Your task to perform on an android device: turn off notifications in google photos Image 0: 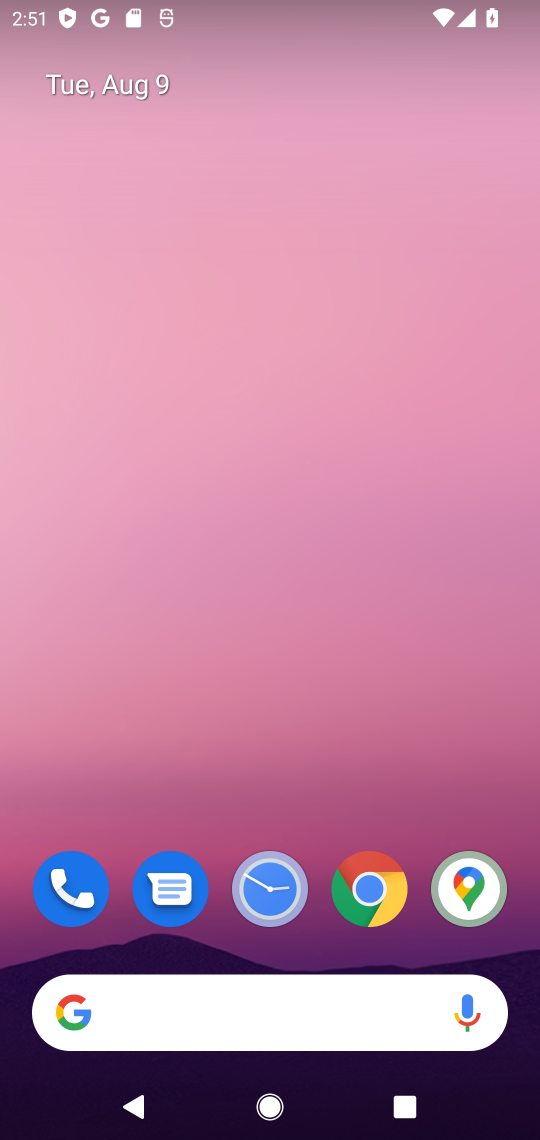
Step 0: drag from (247, 794) to (331, 0)
Your task to perform on an android device: turn off notifications in google photos Image 1: 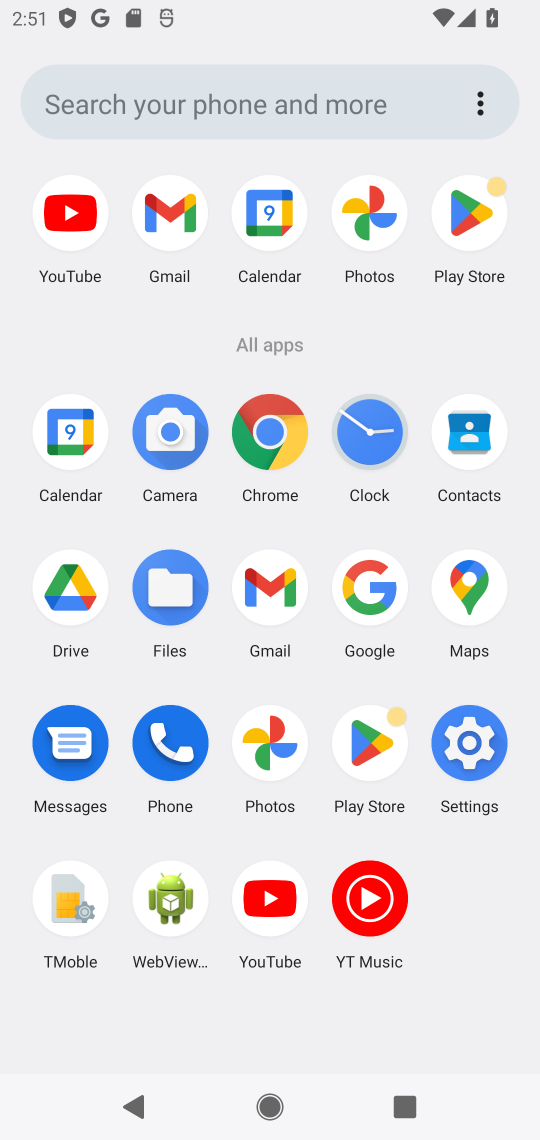
Step 1: click (375, 205)
Your task to perform on an android device: turn off notifications in google photos Image 2: 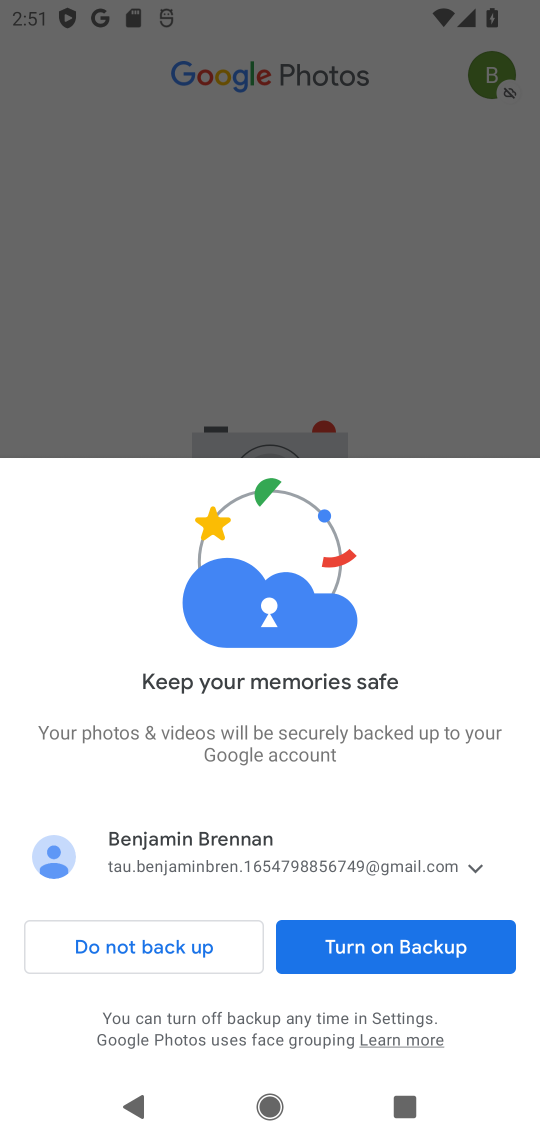
Step 2: click (424, 941)
Your task to perform on an android device: turn off notifications in google photos Image 3: 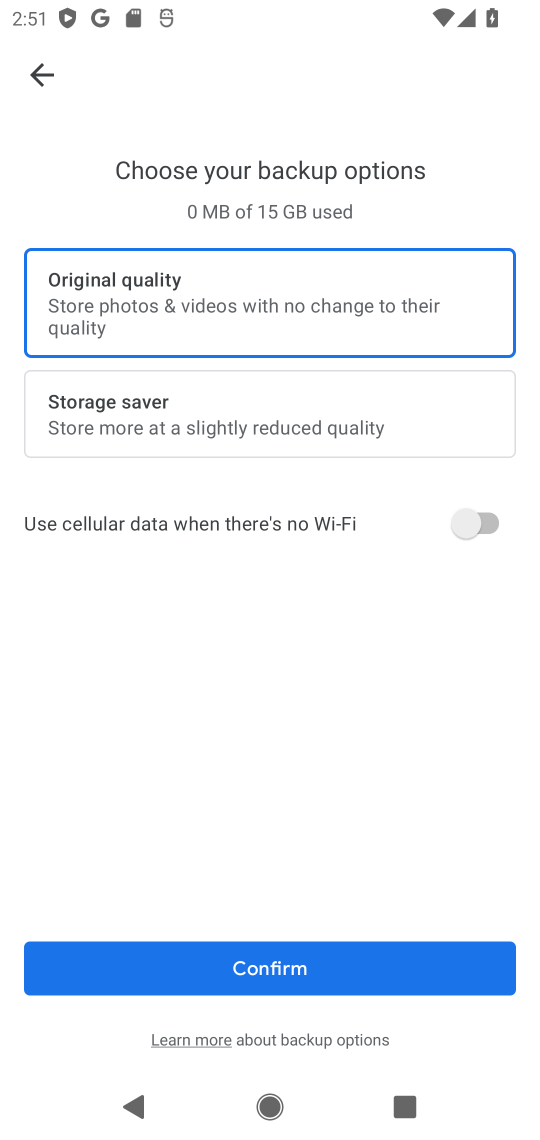
Step 3: click (426, 971)
Your task to perform on an android device: turn off notifications in google photos Image 4: 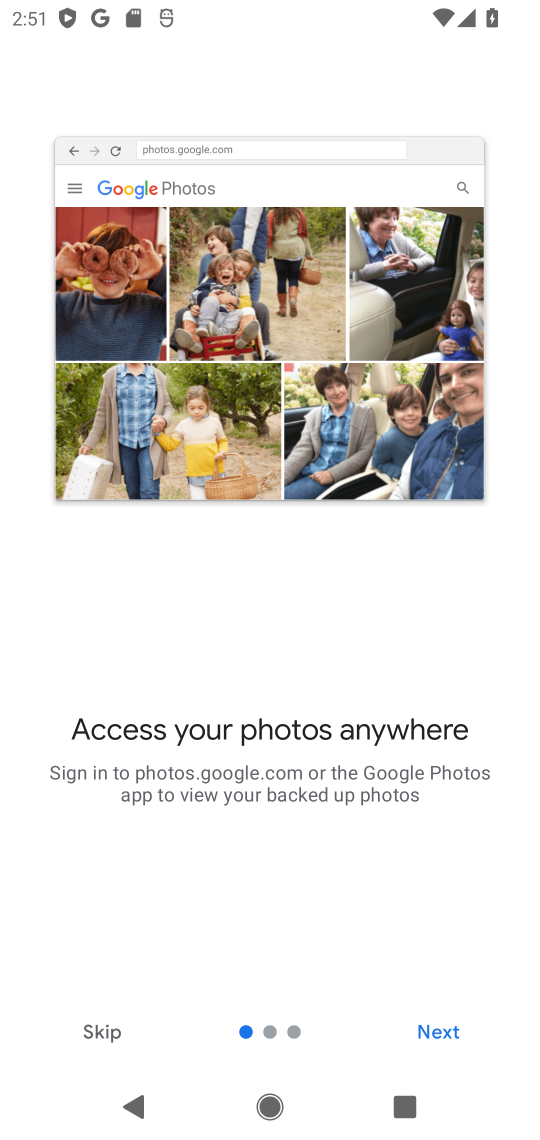
Step 4: click (438, 1030)
Your task to perform on an android device: turn off notifications in google photos Image 5: 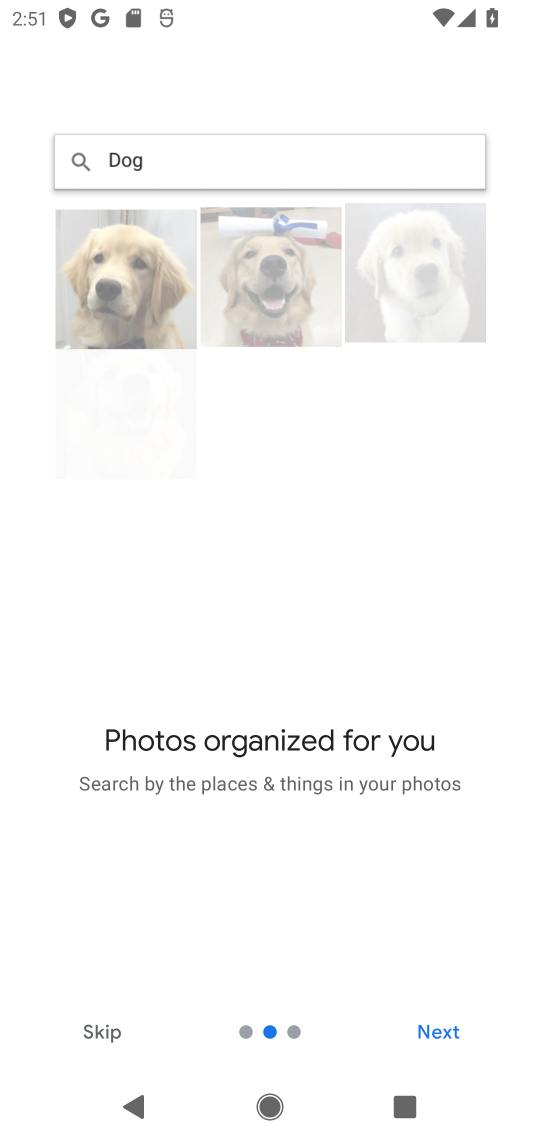
Step 5: click (438, 1028)
Your task to perform on an android device: turn off notifications in google photos Image 6: 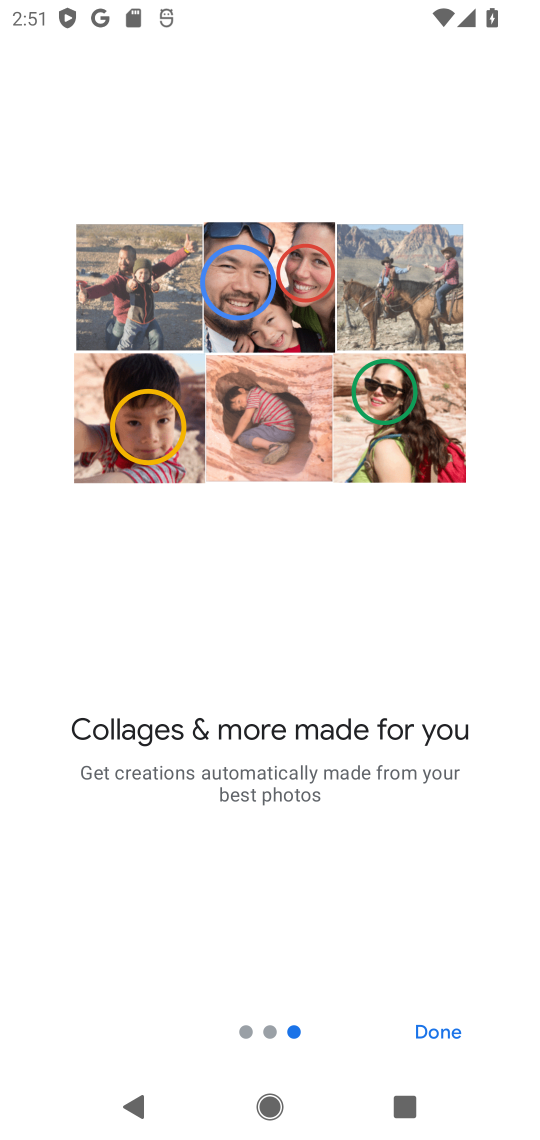
Step 6: click (438, 1025)
Your task to perform on an android device: turn off notifications in google photos Image 7: 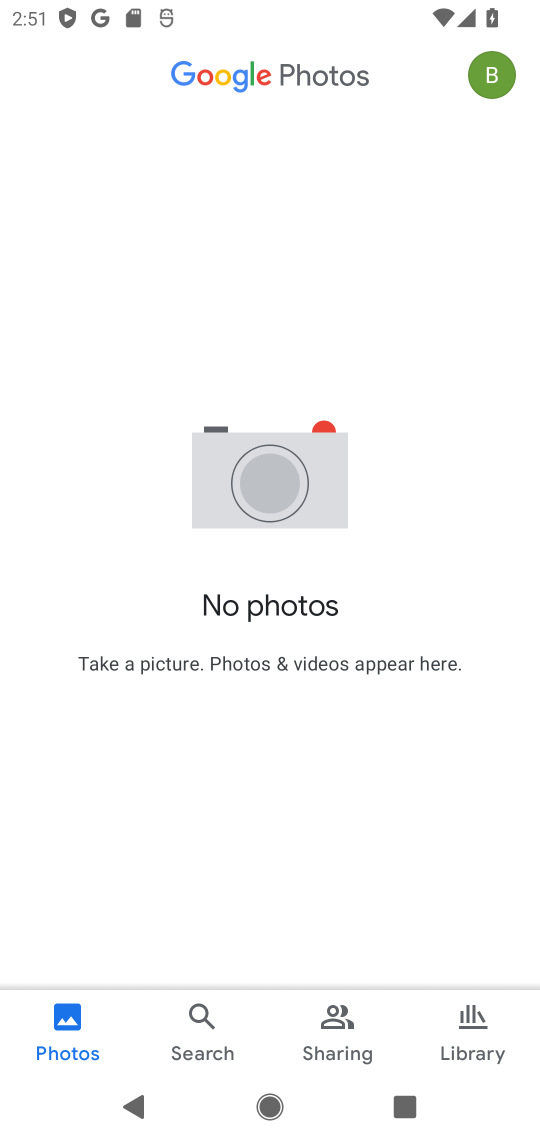
Step 7: click (498, 76)
Your task to perform on an android device: turn off notifications in google photos Image 8: 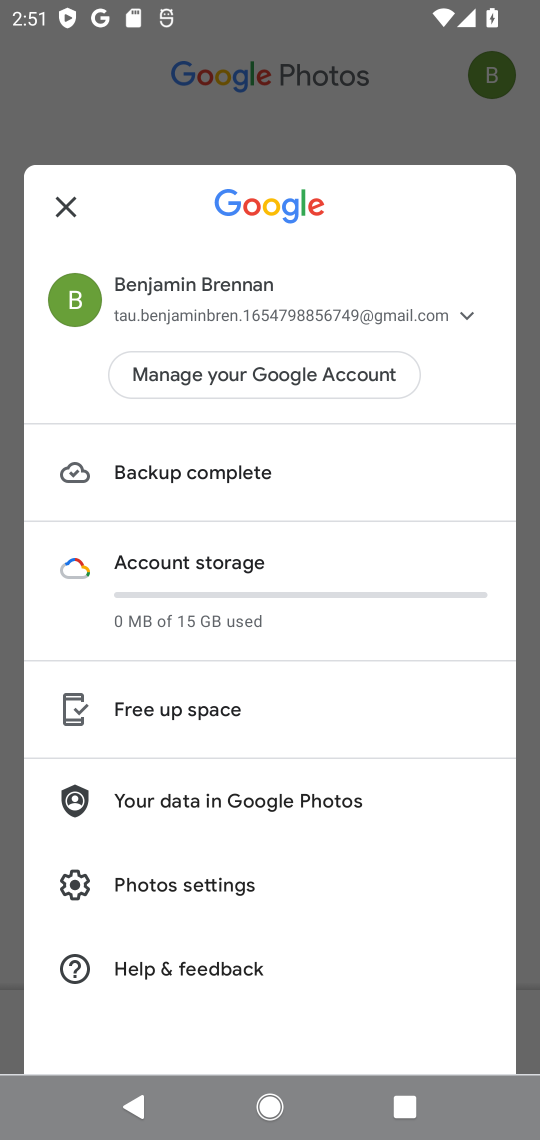
Step 8: click (233, 878)
Your task to perform on an android device: turn off notifications in google photos Image 9: 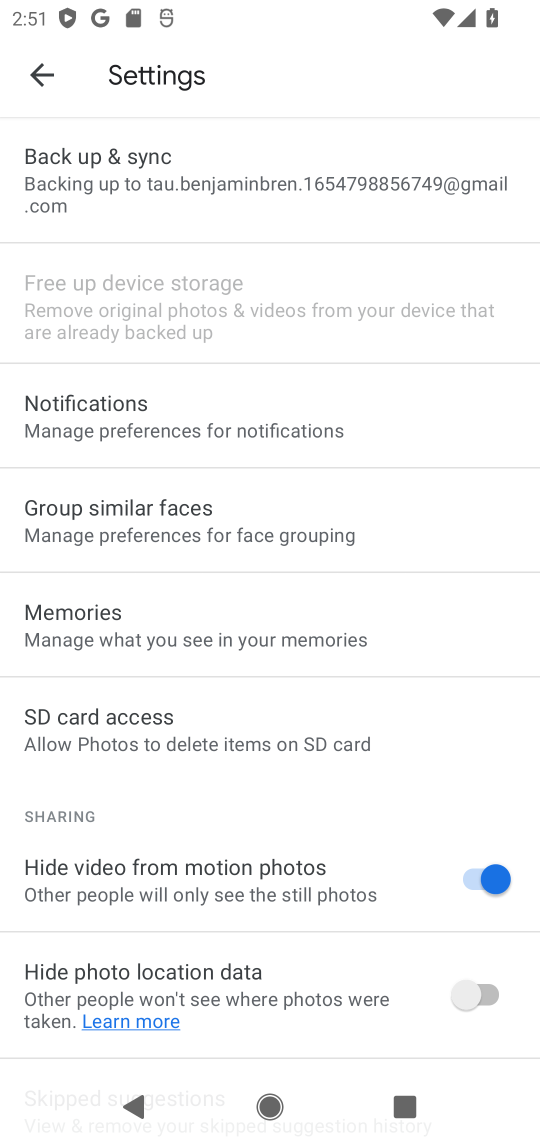
Step 9: click (241, 426)
Your task to perform on an android device: turn off notifications in google photos Image 10: 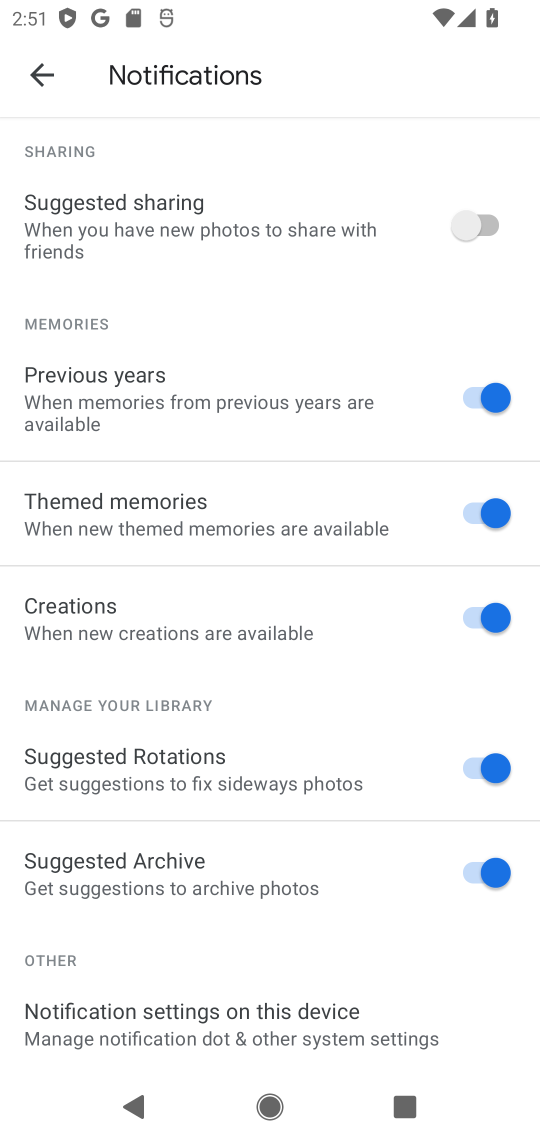
Step 10: click (271, 1026)
Your task to perform on an android device: turn off notifications in google photos Image 11: 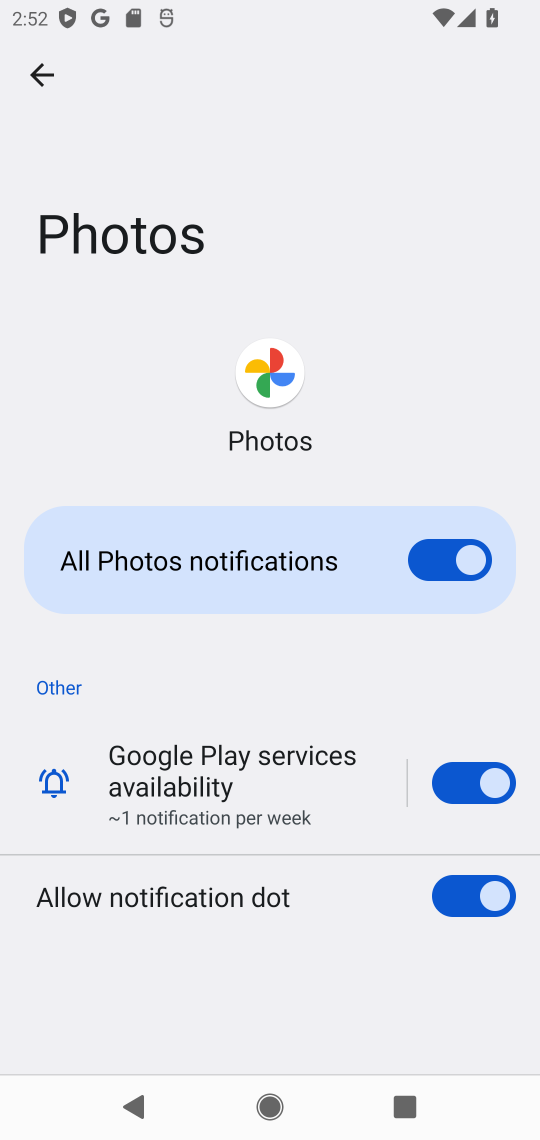
Step 11: click (440, 556)
Your task to perform on an android device: turn off notifications in google photos Image 12: 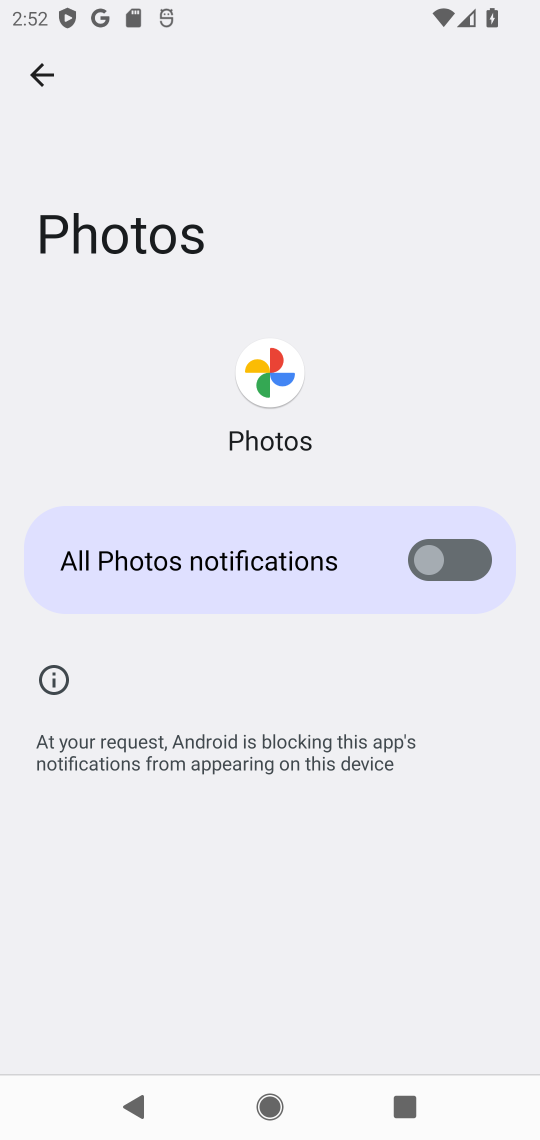
Step 12: task complete